Your task to perform on an android device: check storage Image 0: 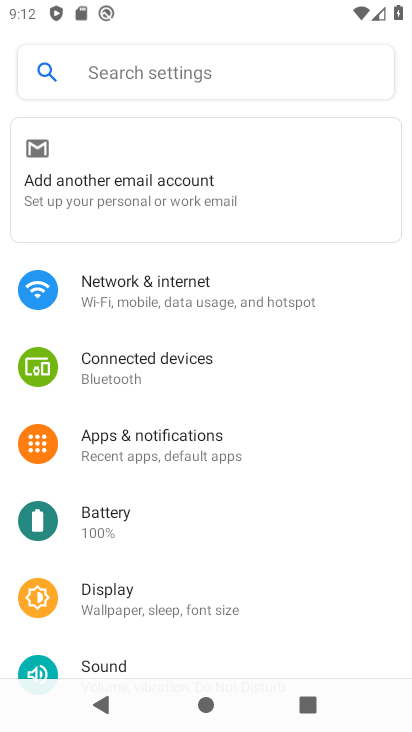
Step 0: press home button
Your task to perform on an android device: check storage Image 1: 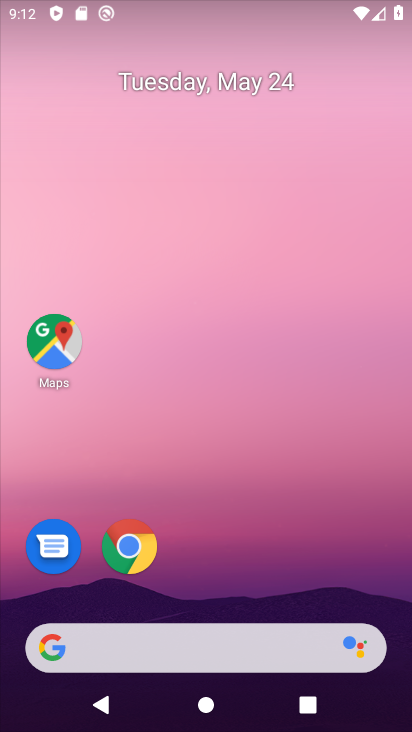
Step 1: drag from (393, 553) to (397, 212)
Your task to perform on an android device: check storage Image 2: 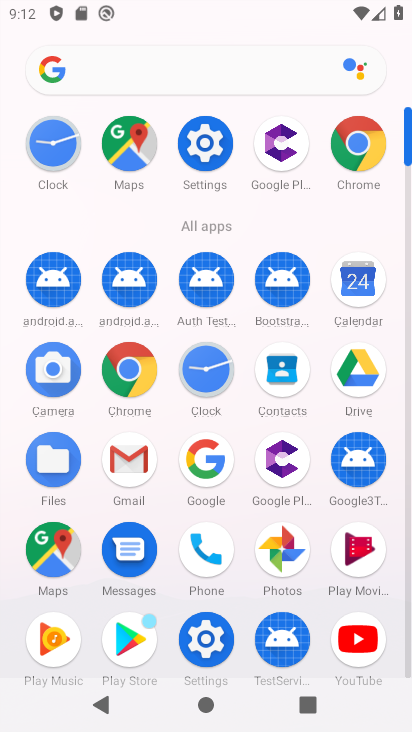
Step 2: click (202, 630)
Your task to perform on an android device: check storage Image 3: 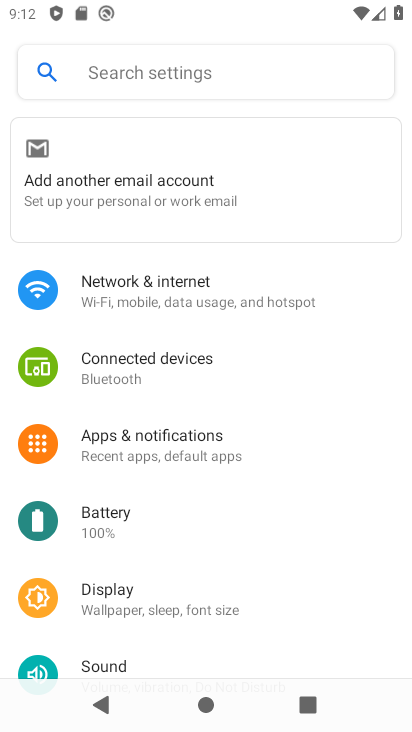
Step 3: drag from (160, 644) to (158, 345)
Your task to perform on an android device: check storage Image 4: 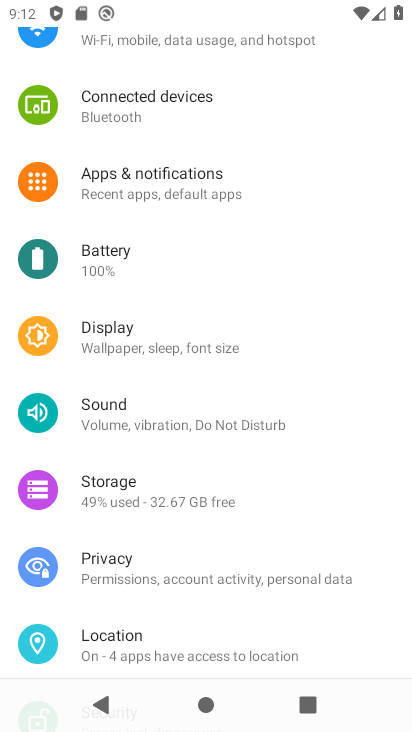
Step 4: drag from (154, 573) to (199, 375)
Your task to perform on an android device: check storage Image 5: 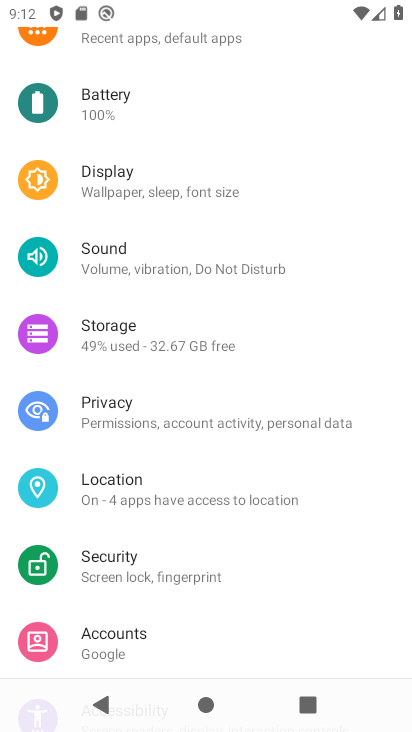
Step 5: click (122, 353)
Your task to perform on an android device: check storage Image 6: 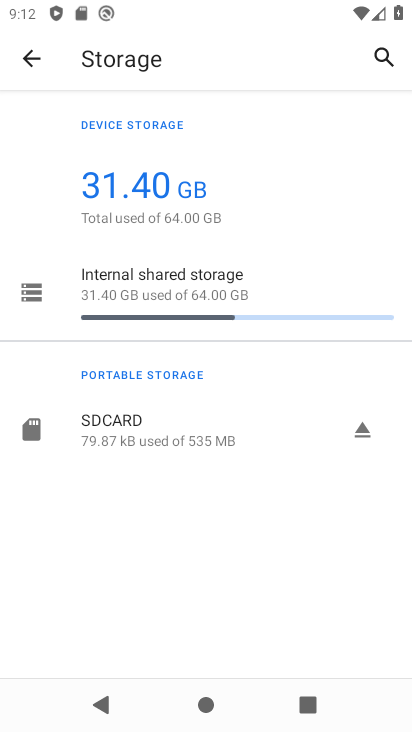
Step 6: click (39, 289)
Your task to perform on an android device: check storage Image 7: 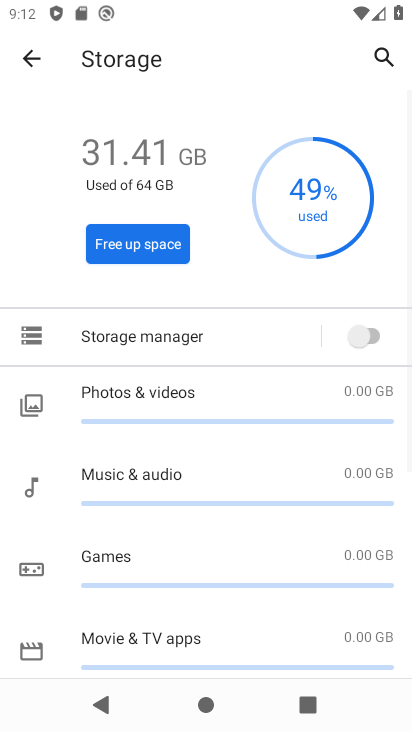
Step 7: click (41, 338)
Your task to perform on an android device: check storage Image 8: 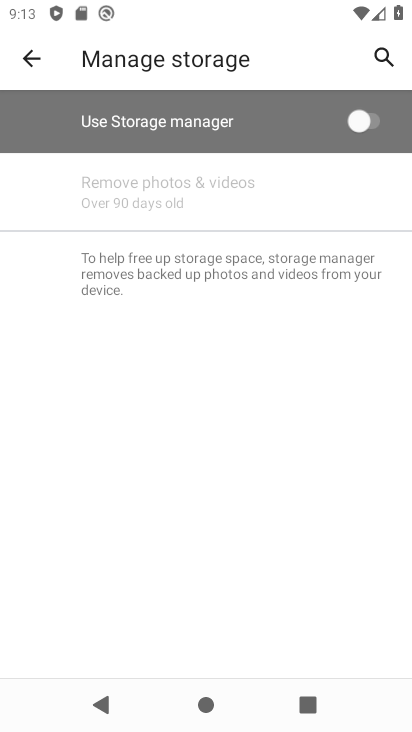
Step 8: task complete